Your task to perform on an android device: open app "Venmo" (install if not already installed) Image 0: 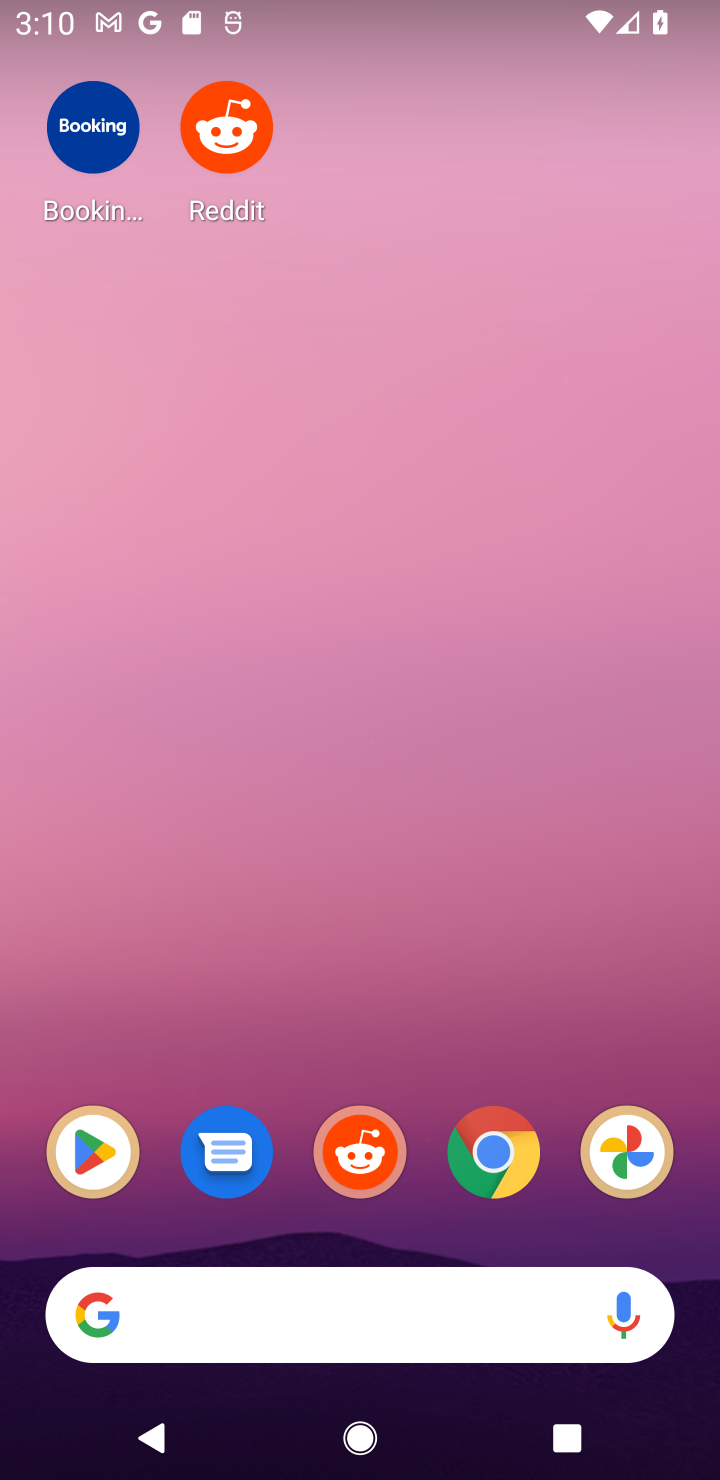
Step 0: click (343, 1256)
Your task to perform on an android device: open app "Venmo" (install if not already installed) Image 1: 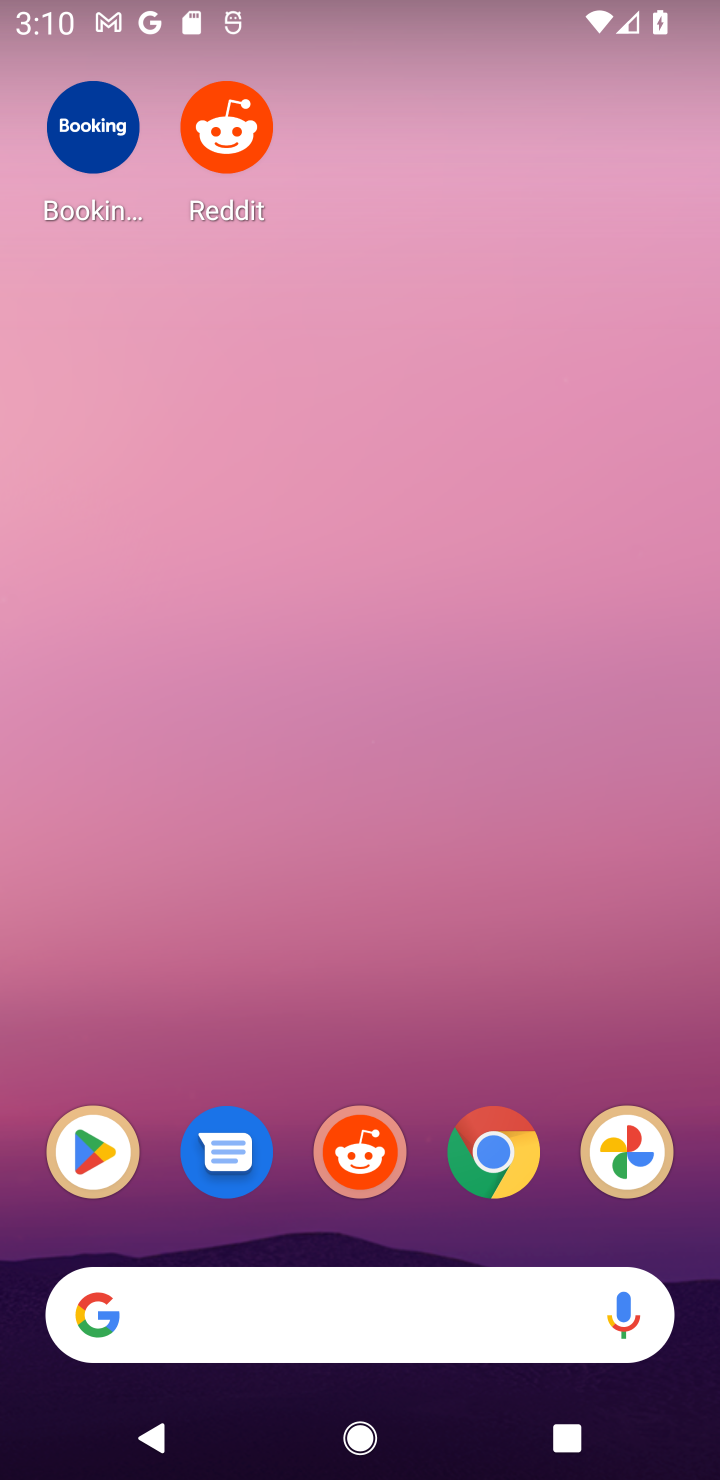
Step 1: click (116, 1172)
Your task to perform on an android device: open app "Venmo" (install if not already installed) Image 2: 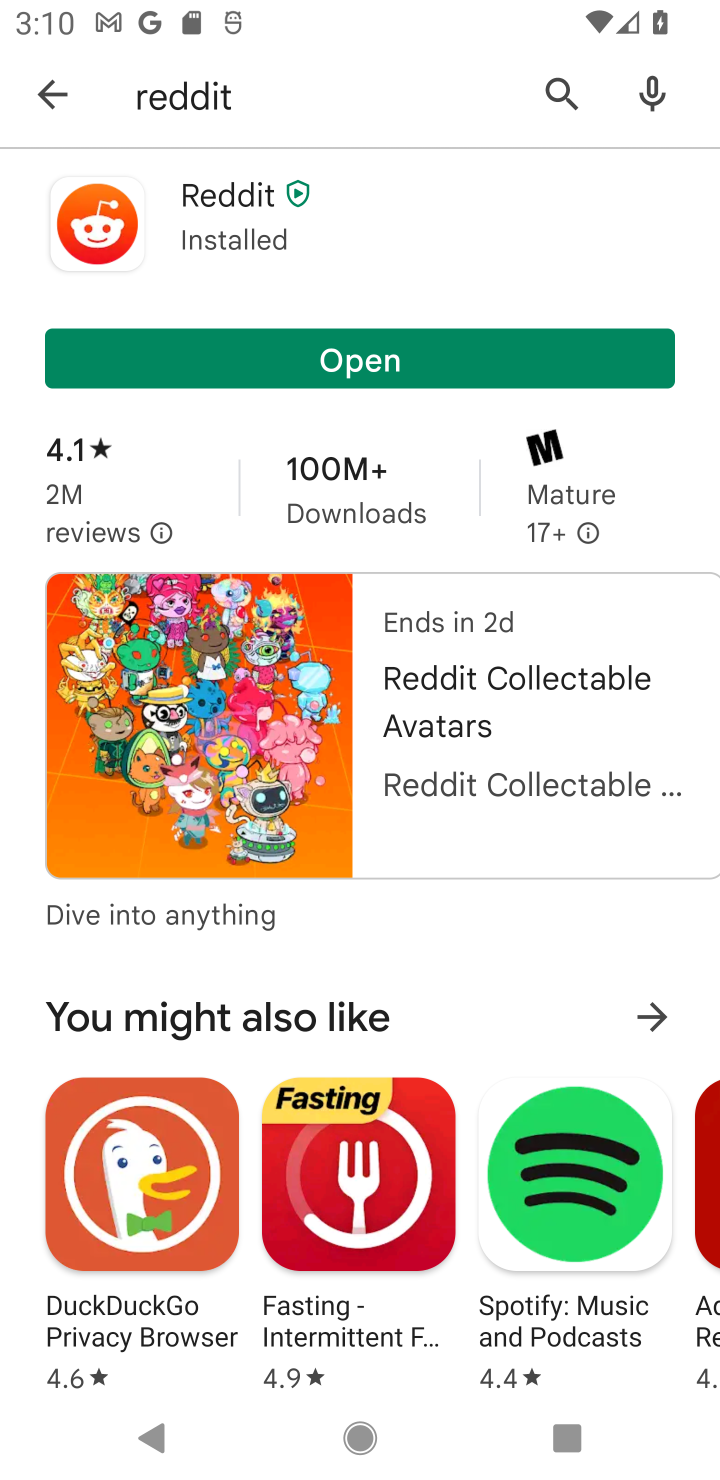
Step 2: click (53, 103)
Your task to perform on an android device: open app "Venmo" (install if not already installed) Image 3: 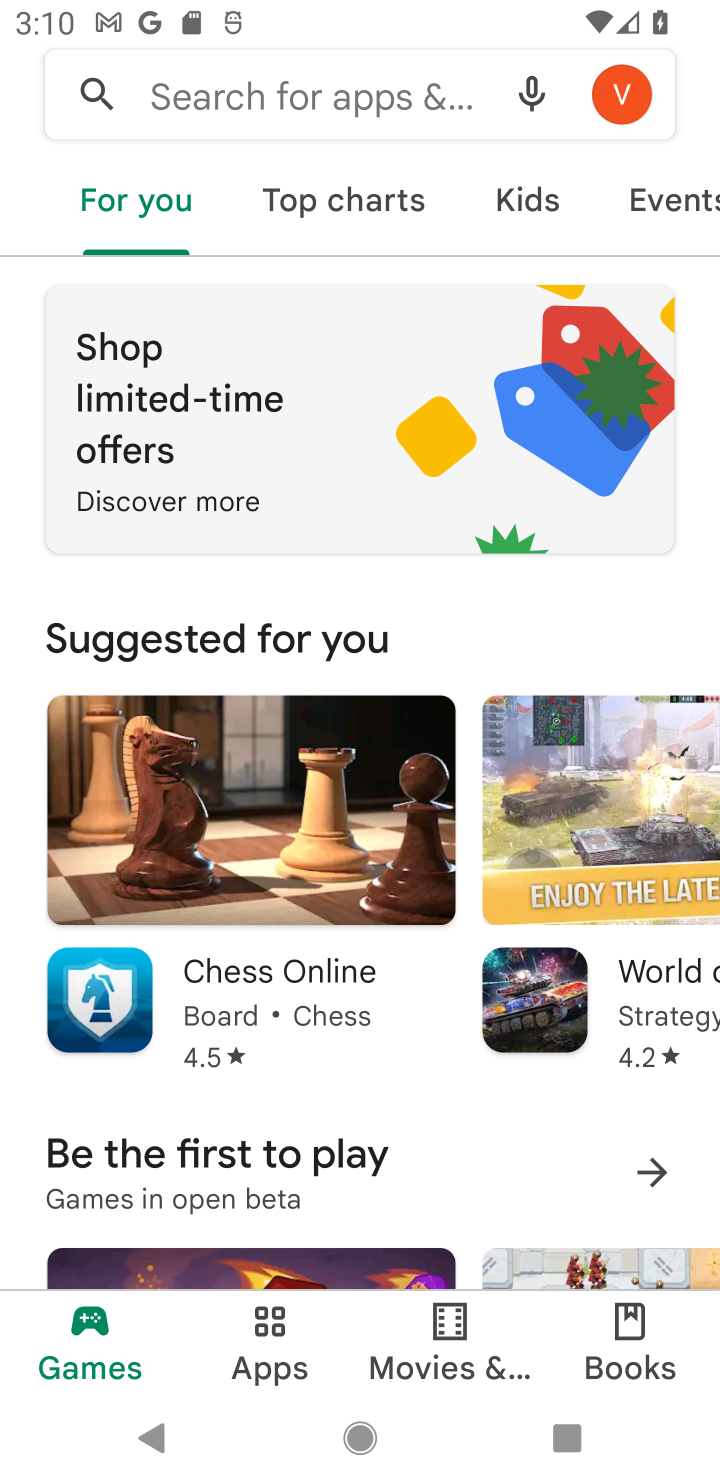
Step 3: click (166, 116)
Your task to perform on an android device: open app "Venmo" (install if not already installed) Image 4: 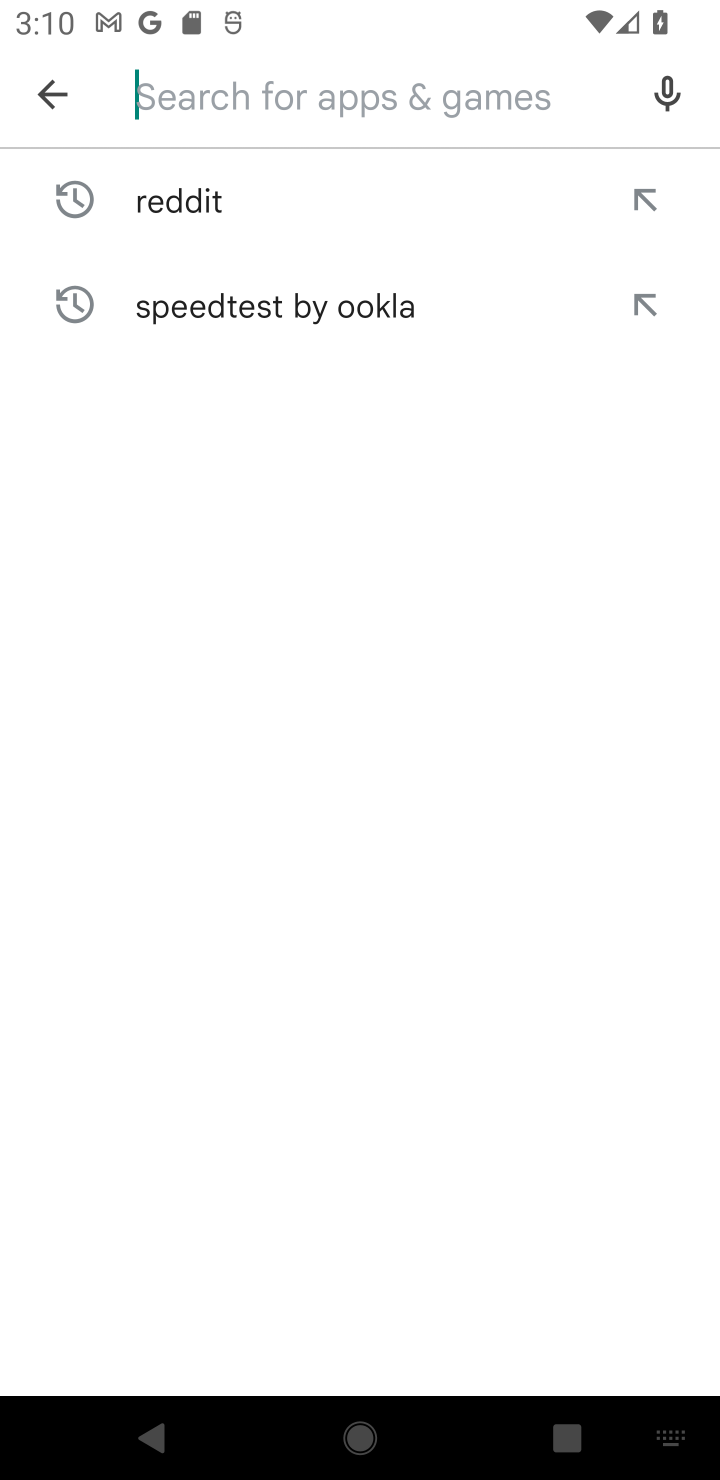
Step 4: type "Venmo"
Your task to perform on an android device: open app "Venmo" (install if not already installed) Image 5: 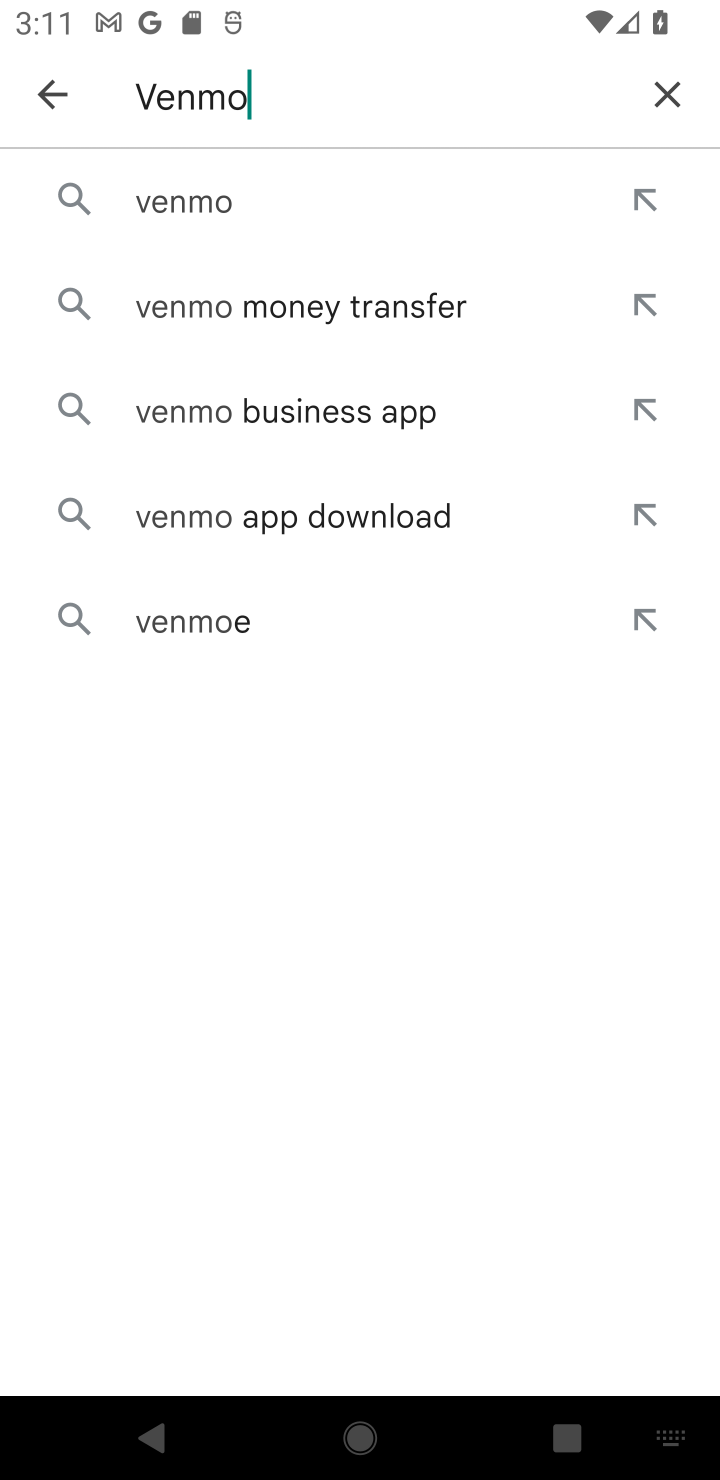
Step 5: click (206, 198)
Your task to perform on an android device: open app "Venmo" (install if not already installed) Image 6: 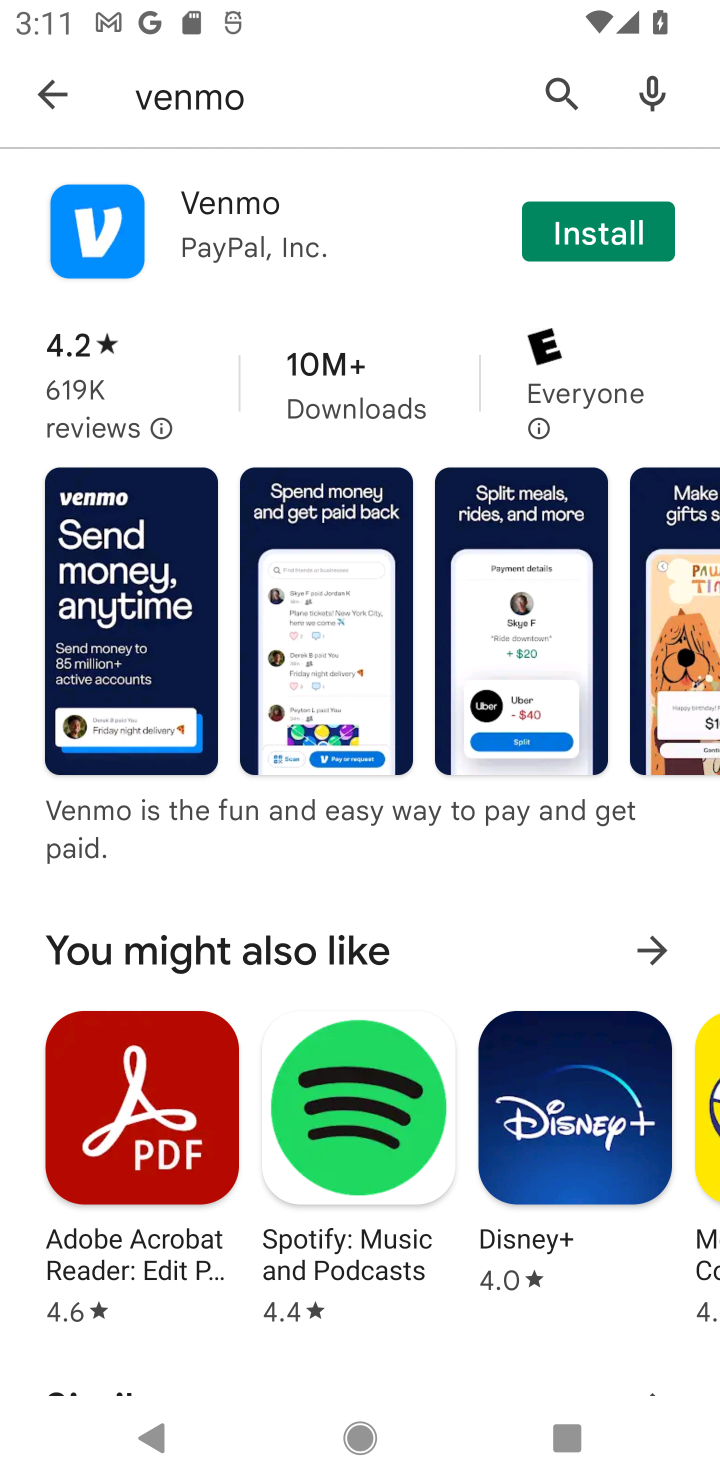
Step 6: task complete